Your task to perform on an android device: check google app version Image 0: 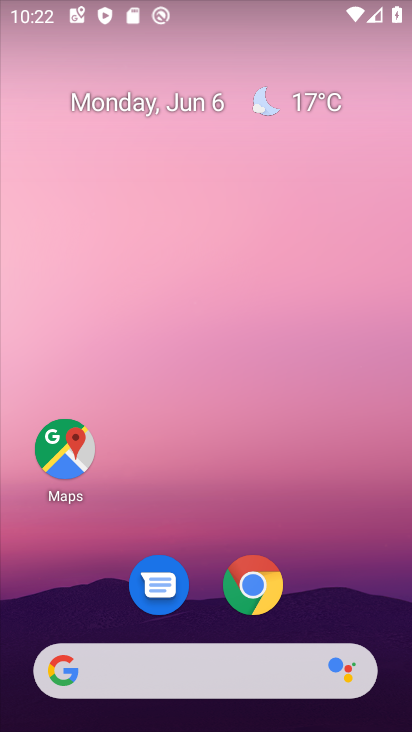
Step 0: click (240, 673)
Your task to perform on an android device: check google app version Image 1: 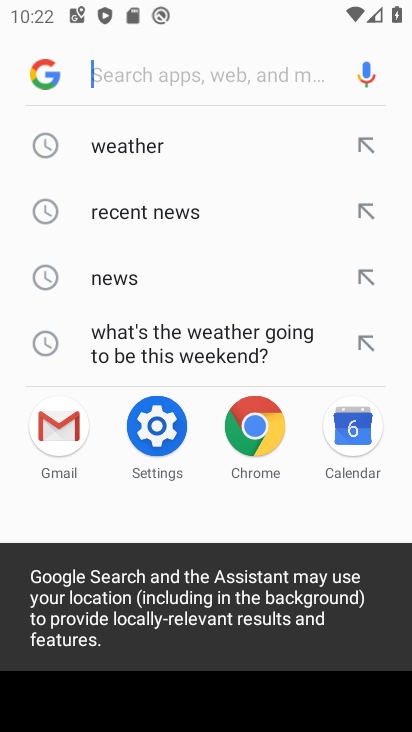
Step 1: click (41, 71)
Your task to perform on an android device: check google app version Image 2: 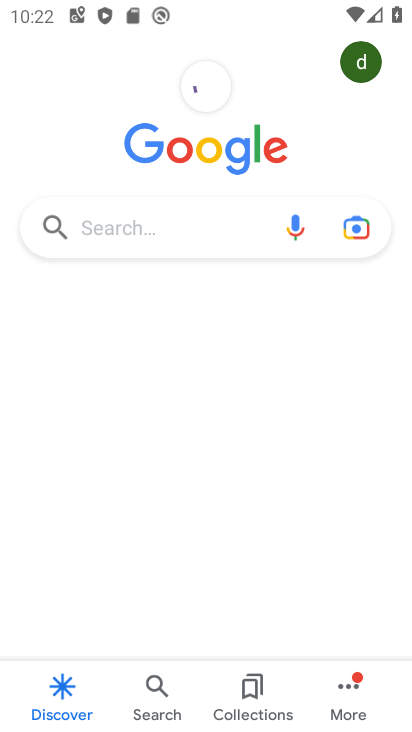
Step 2: click (342, 682)
Your task to perform on an android device: check google app version Image 3: 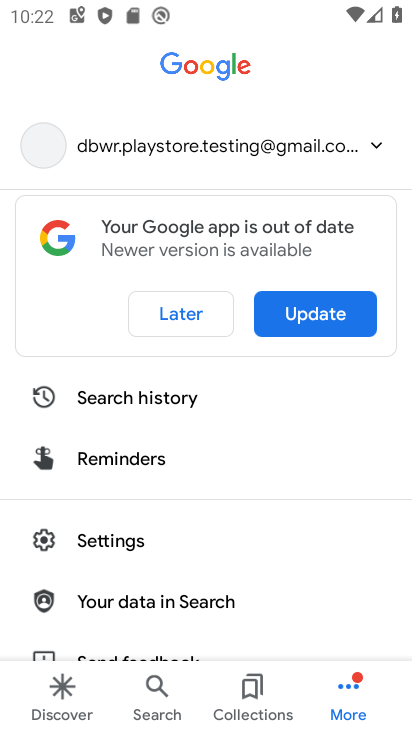
Step 3: click (129, 534)
Your task to perform on an android device: check google app version Image 4: 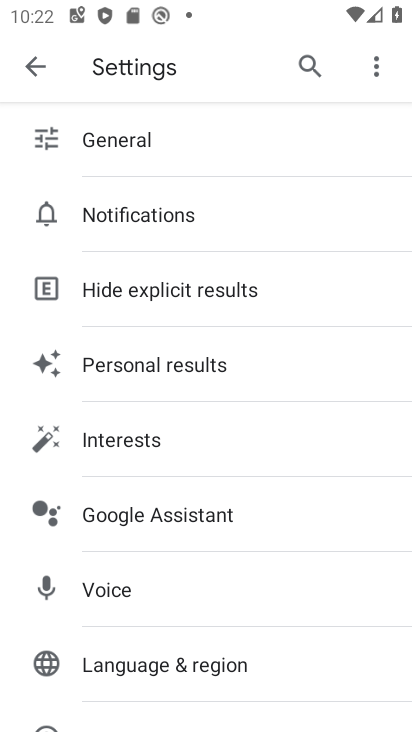
Step 4: drag from (177, 605) to (213, 277)
Your task to perform on an android device: check google app version Image 5: 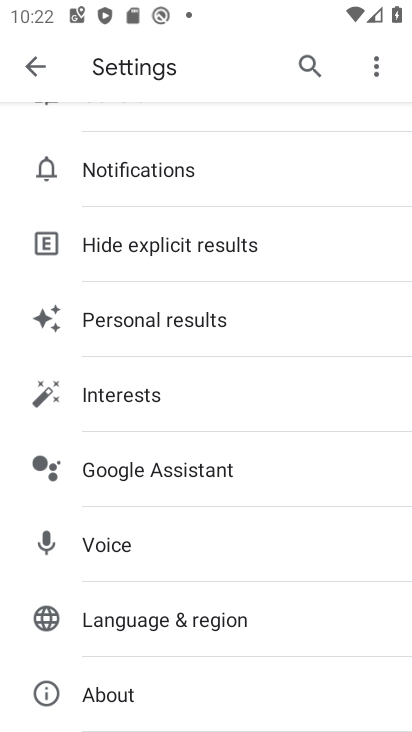
Step 5: click (171, 692)
Your task to perform on an android device: check google app version Image 6: 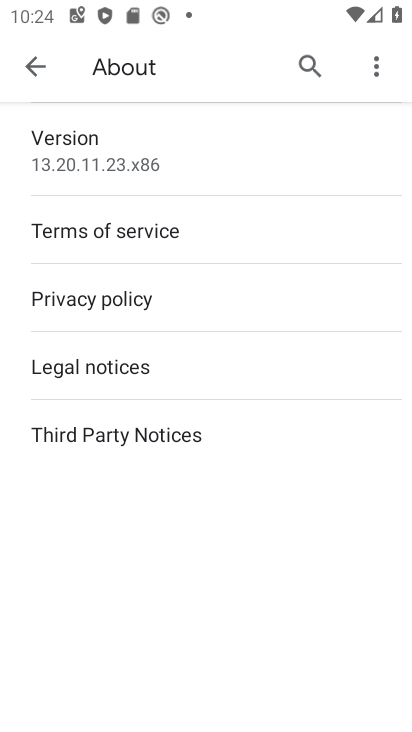
Step 6: task complete